Your task to perform on an android device: turn off javascript in the chrome app Image 0: 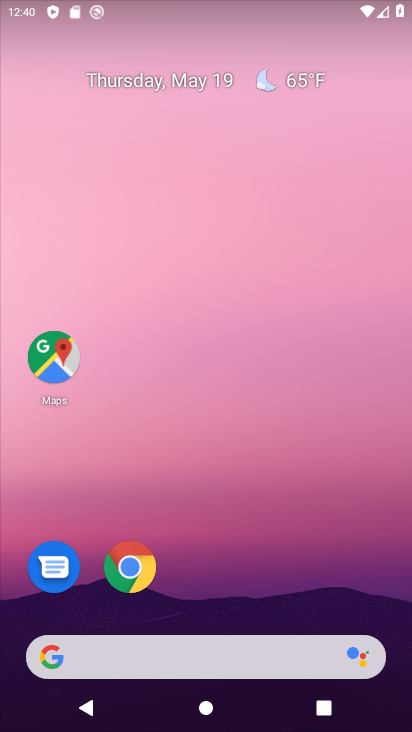
Step 0: click (129, 566)
Your task to perform on an android device: turn off javascript in the chrome app Image 1: 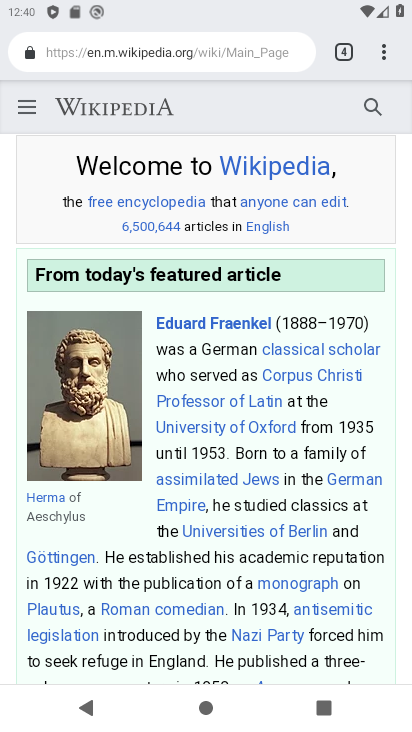
Step 1: click (382, 53)
Your task to perform on an android device: turn off javascript in the chrome app Image 2: 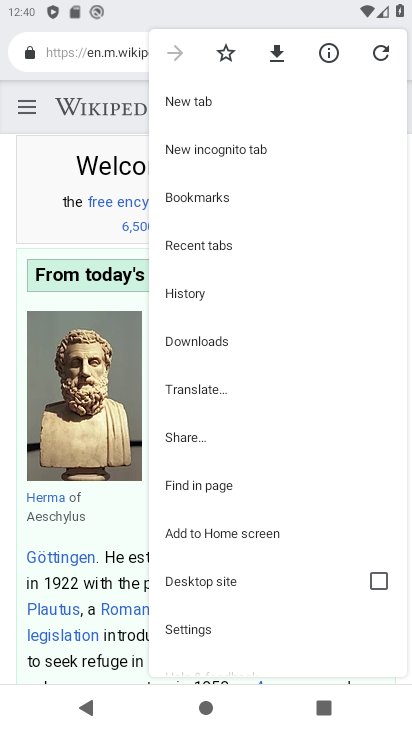
Step 2: click (208, 626)
Your task to perform on an android device: turn off javascript in the chrome app Image 3: 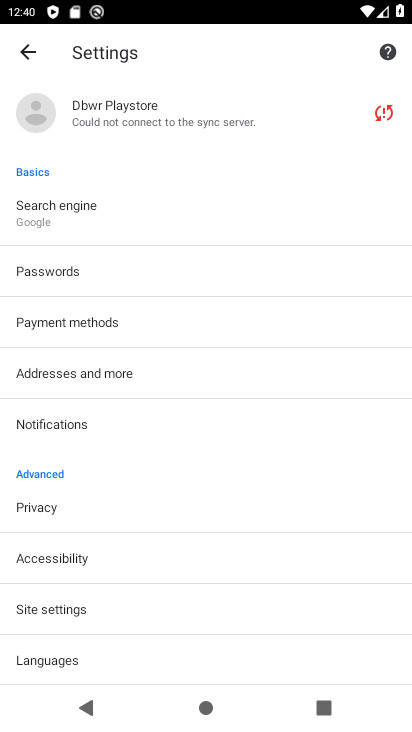
Step 3: click (102, 607)
Your task to perform on an android device: turn off javascript in the chrome app Image 4: 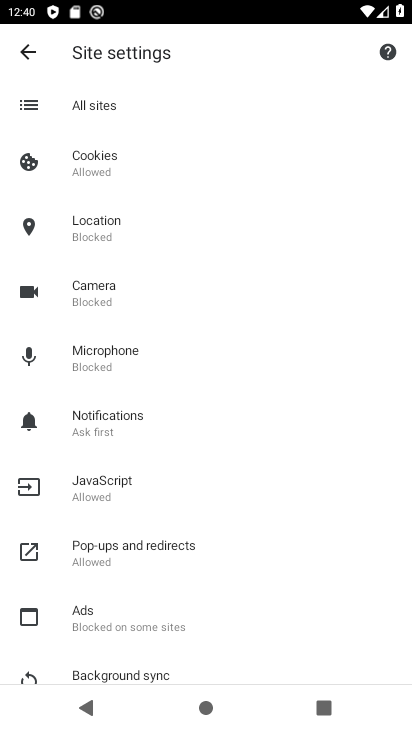
Step 4: click (129, 494)
Your task to perform on an android device: turn off javascript in the chrome app Image 5: 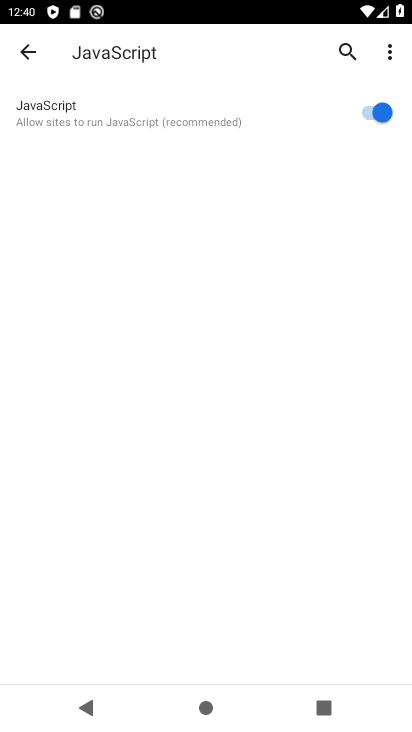
Step 5: click (372, 113)
Your task to perform on an android device: turn off javascript in the chrome app Image 6: 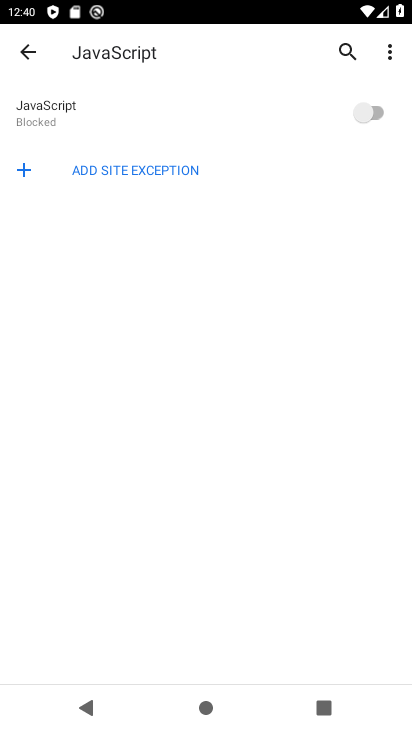
Step 6: task complete